Your task to perform on an android device: Check the news Image 0: 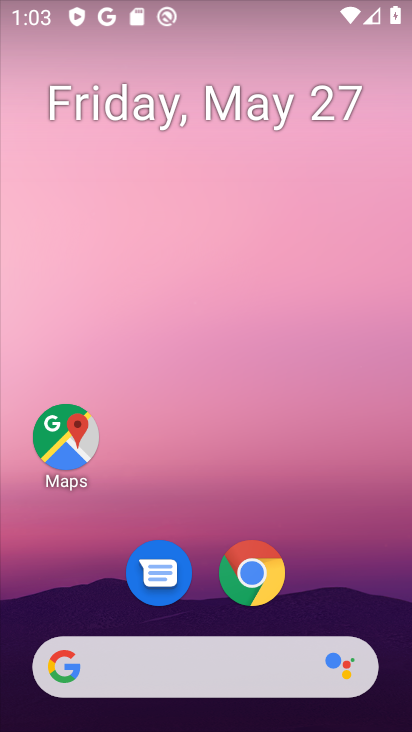
Step 0: click (217, 653)
Your task to perform on an android device: Check the news Image 1: 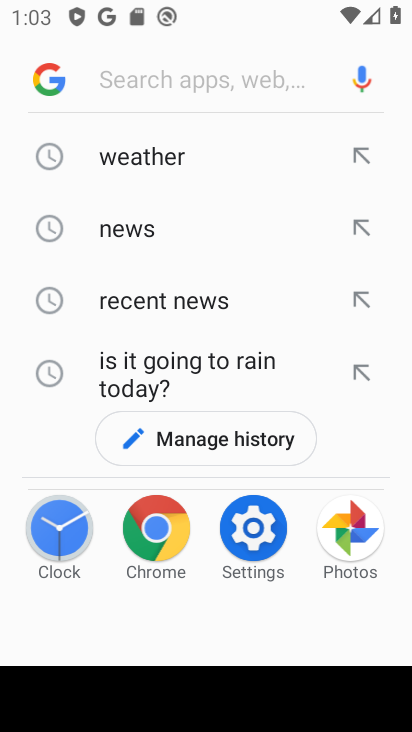
Step 1: click (157, 230)
Your task to perform on an android device: Check the news Image 2: 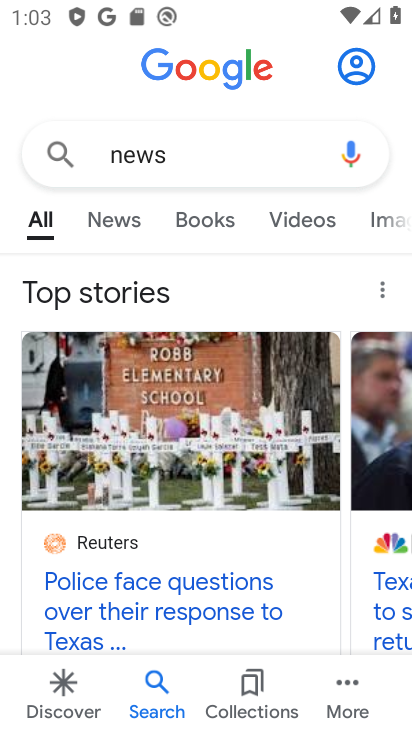
Step 2: click (120, 216)
Your task to perform on an android device: Check the news Image 3: 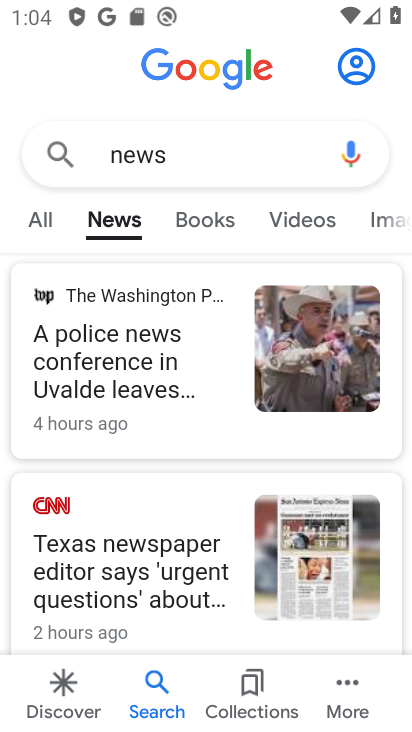
Step 3: task complete